Your task to perform on an android device: move an email to a new category in the gmail app Image 0: 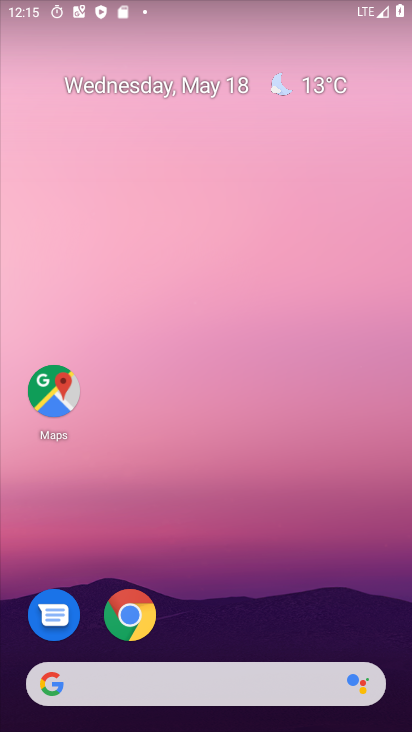
Step 0: drag from (177, 652) to (289, 199)
Your task to perform on an android device: move an email to a new category in the gmail app Image 1: 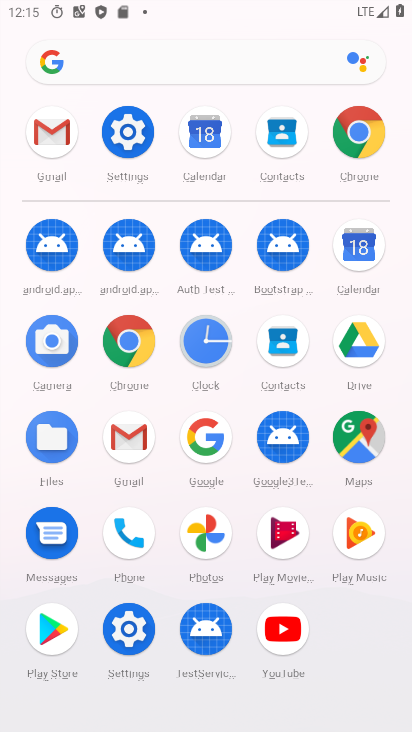
Step 1: click (50, 140)
Your task to perform on an android device: move an email to a new category in the gmail app Image 2: 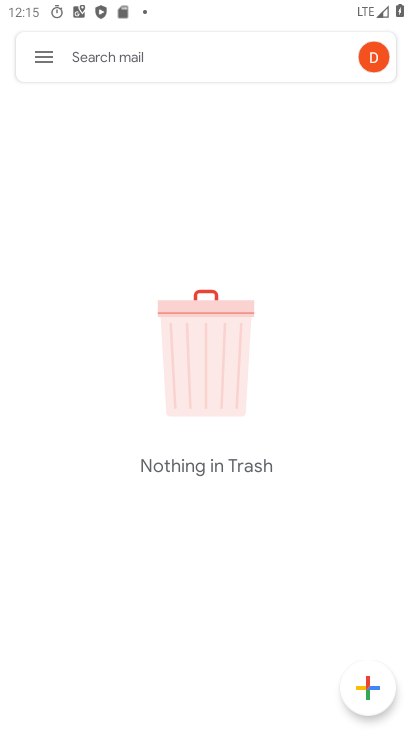
Step 2: click (45, 58)
Your task to perform on an android device: move an email to a new category in the gmail app Image 3: 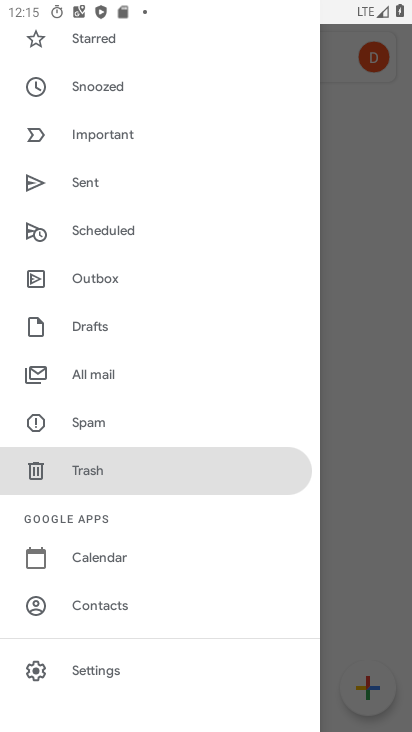
Step 3: click (97, 376)
Your task to perform on an android device: move an email to a new category in the gmail app Image 4: 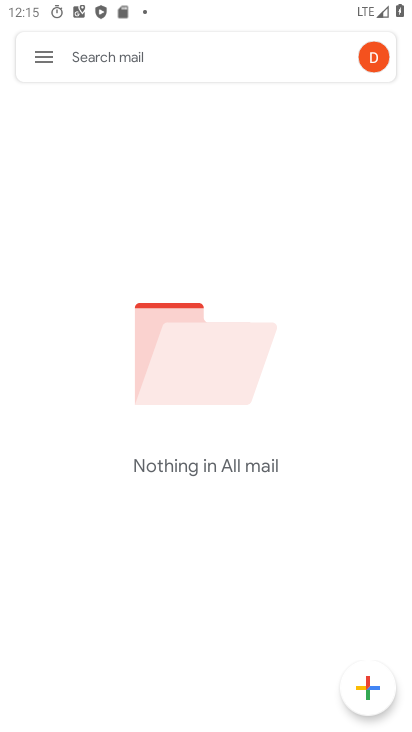
Step 4: task complete